Your task to perform on an android device: Open the calendar and show me this week's events Image 0: 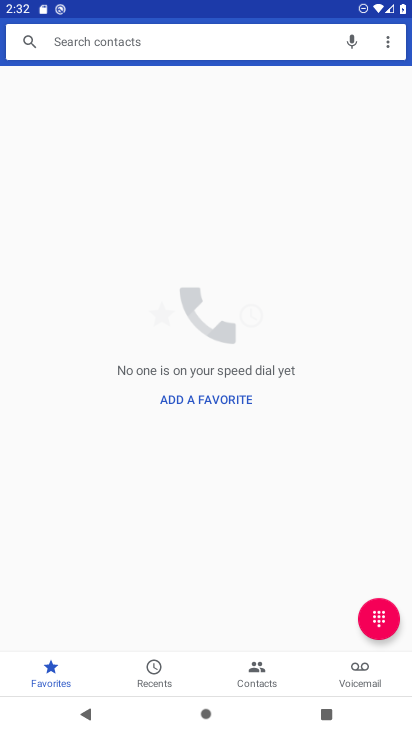
Step 0: press home button
Your task to perform on an android device: Open the calendar and show me this week's events Image 1: 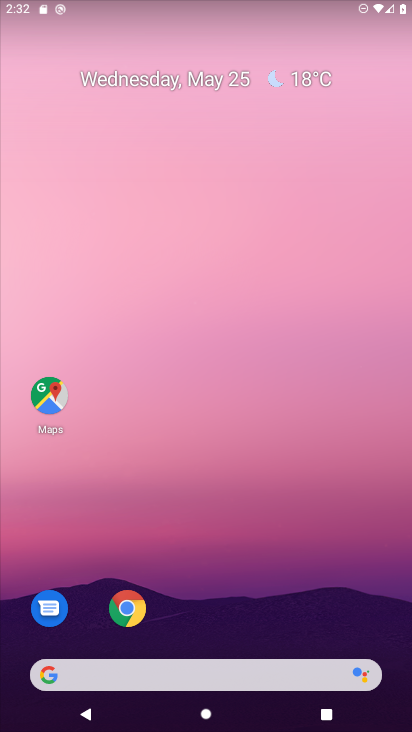
Step 1: drag from (398, 634) to (321, 130)
Your task to perform on an android device: Open the calendar and show me this week's events Image 2: 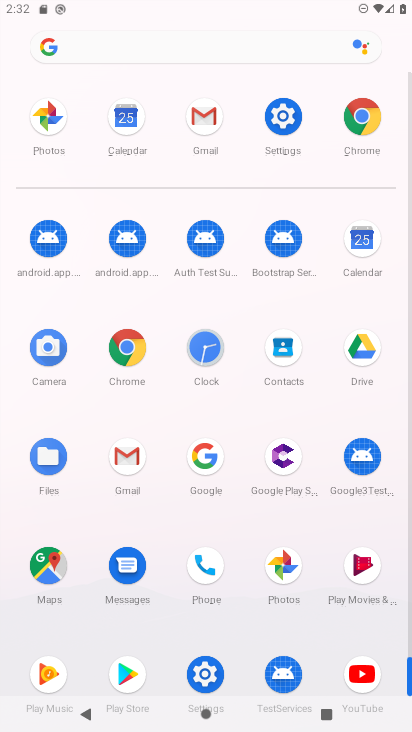
Step 2: click (360, 238)
Your task to perform on an android device: Open the calendar and show me this week's events Image 3: 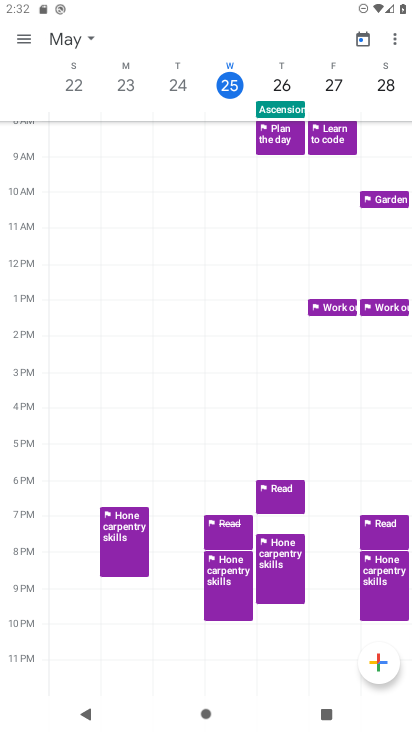
Step 3: click (30, 37)
Your task to perform on an android device: Open the calendar and show me this week's events Image 4: 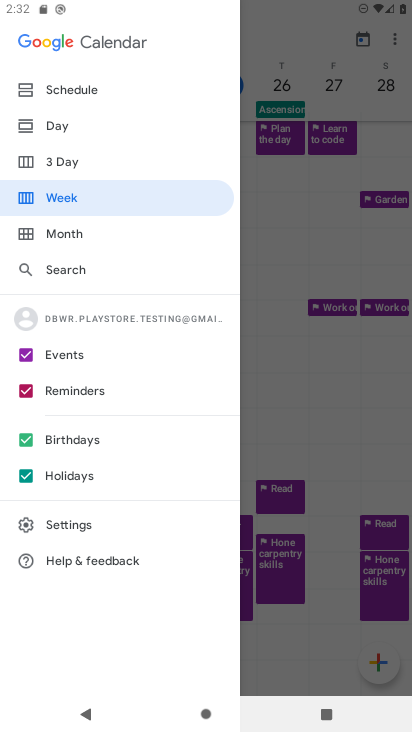
Step 4: click (93, 201)
Your task to perform on an android device: Open the calendar and show me this week's events Image 5: 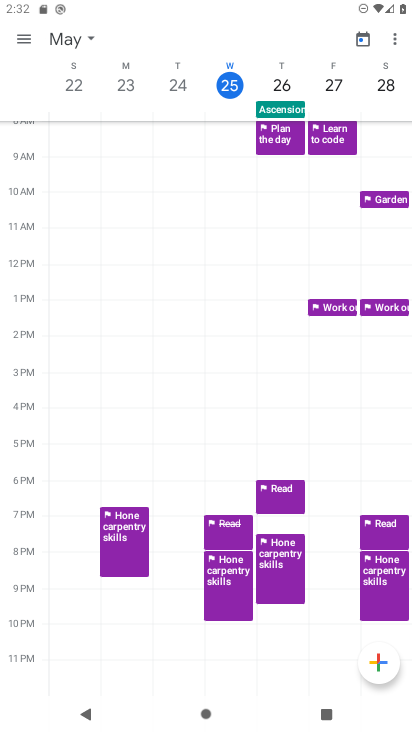
Step 5: task complete